Your task to perform on an android device: Open the camera Image 0: 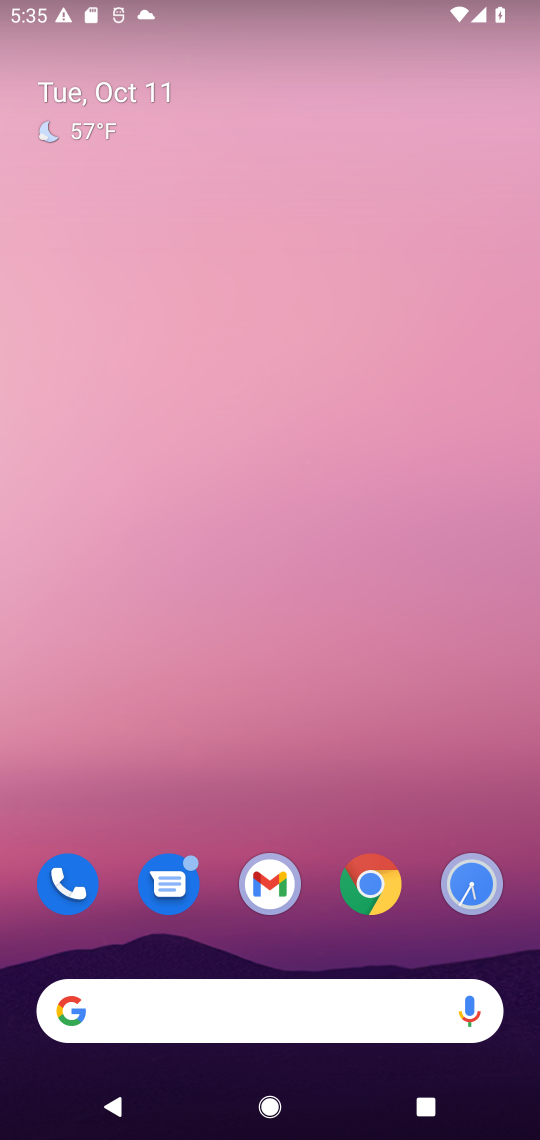
Step 0: drag from (305, 970) to (294, 104)
Your task to perform on an android device: Open the camera Image 1: 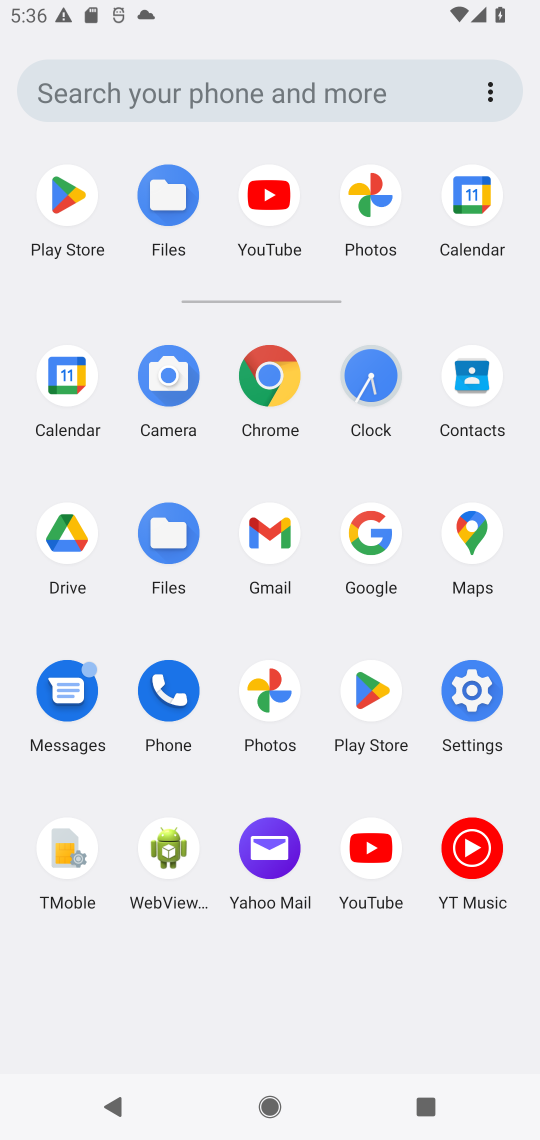
Step 1: task complete